Your task to perform on an android device: Open Reddit.com Image 0: 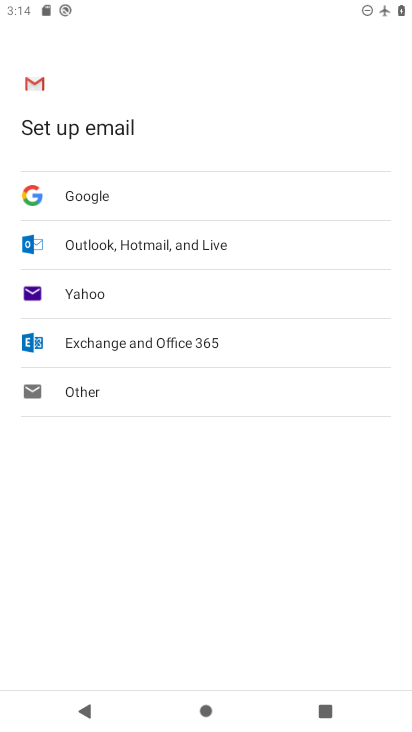
Step 0: press home button
Your task to perform on an android device: Open Reddit.com Image 1: 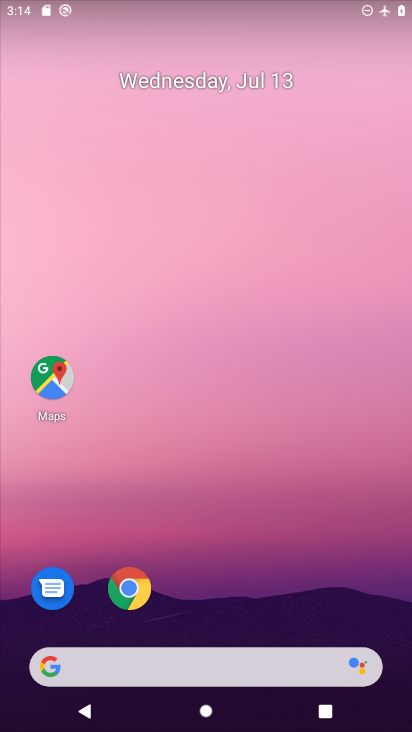
Step 1: click (142, 591)
Your task to perform on an android device: Open Reddit.com Image 2: 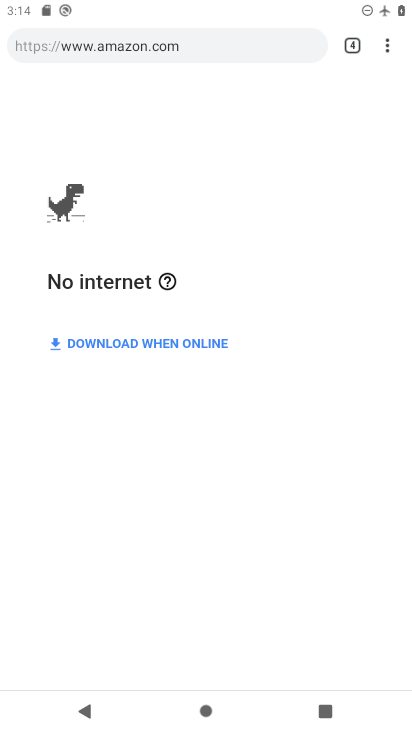
Step 2: click (345, 45)
Your task to perform on an android device: Open Reddit.com Image 3: 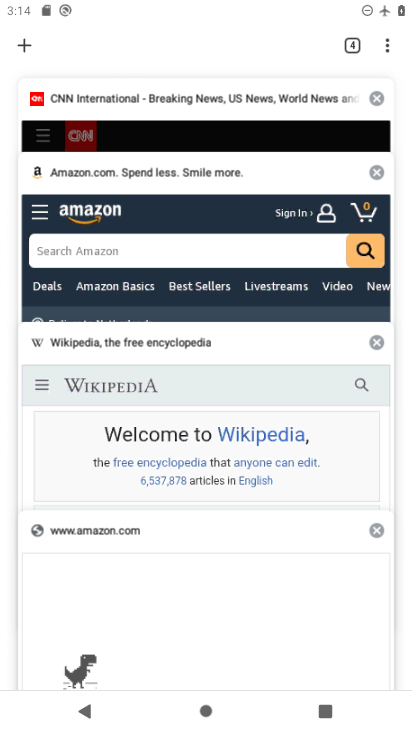
Step 3: click (31, 36)
Your task to perform on an android device: Open Reddit.com Image 4: 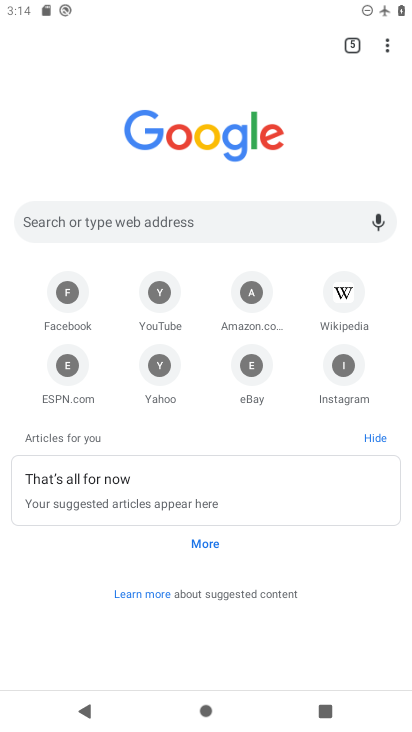
Step 4: click (195, 228)
Your task to perform on an android device: Open Reddit.com Image 5: 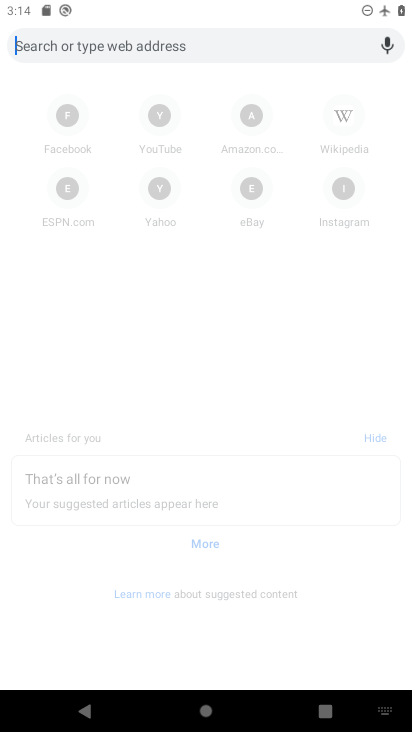
Step 5: type " Reddit.com"
Your task to perform on an android device: Open Reddit.com Image 6: 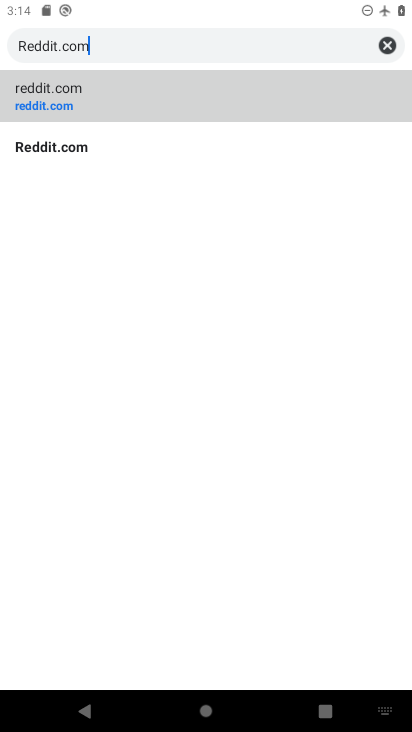
Step 6: type ""
Your task to perform on an android device: Open Reddit.com Image 7: 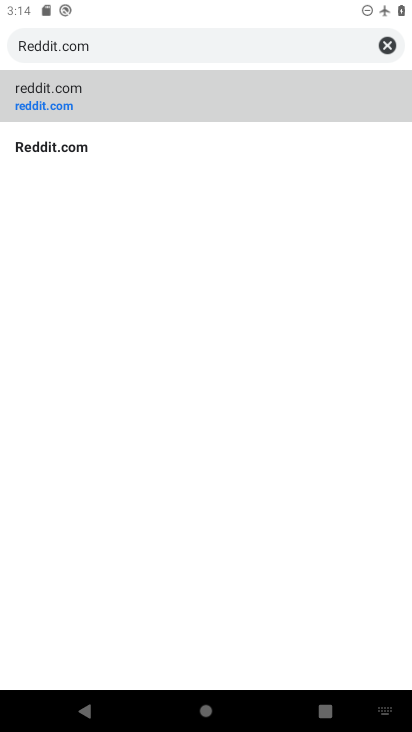
Step 7: click (121, 94)
Your task to perform on an android device: Open Reddit.com Image 8: 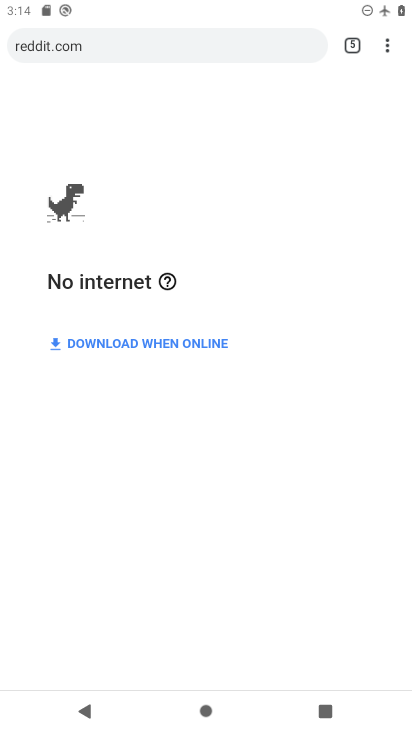
Step 8: task complete